Your task to perform on an android device: toggle javascript in the chrome app Image 0: 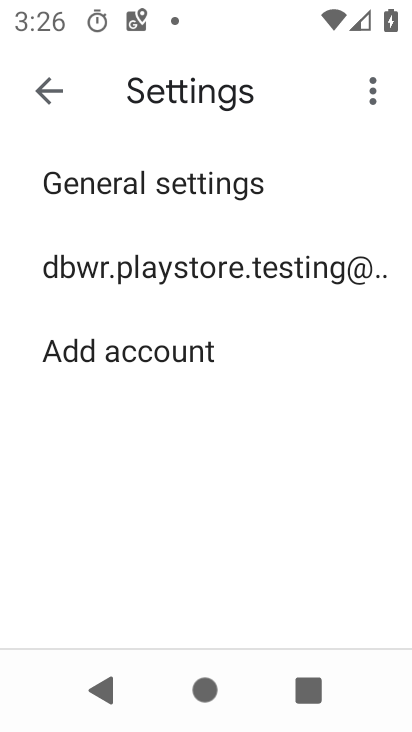
Step 0: press home button
Your task to perform on an android device: toggle javascript in the chrome app Image 1: 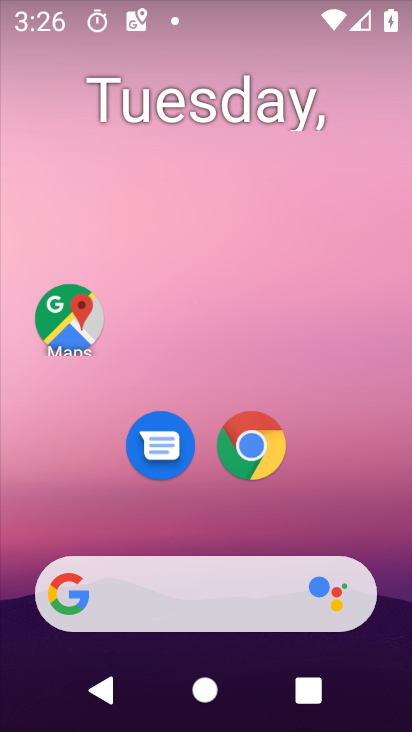
Step 1: click (233, 462)
Your task to perform on an android device: toggle javascript in the chrome app Image 2: 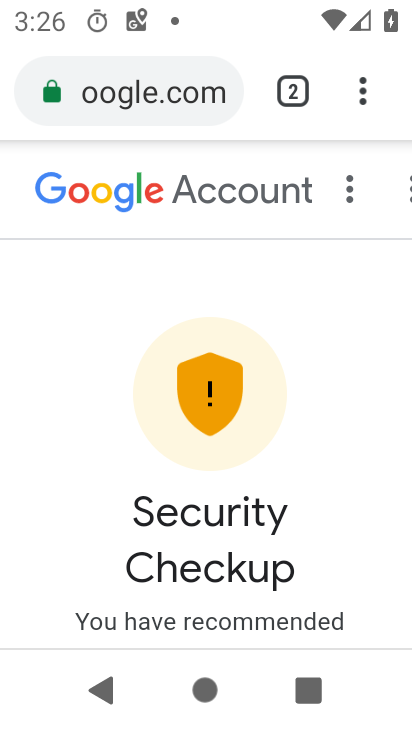
Step 2: click (350, 100)
Your task to perform on an android device: toggle javascript in the chrome app Image 3: 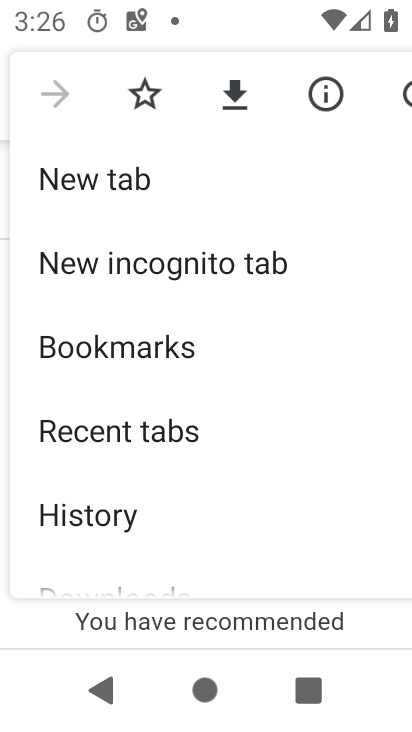
Step 3: drag from (258, 463) to (227, 21)
Your task to perform on an android device: toggle javascript in the chrome app Image 4: 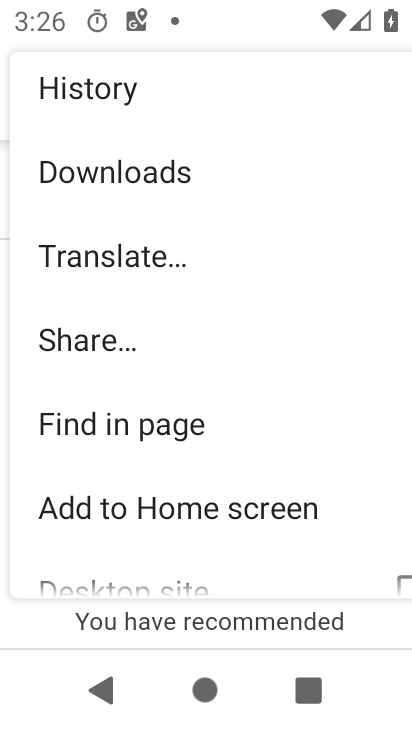
Step 4: drag from (86, 528) to (0, 46)
Your task to perform on an android device: toggle javascript in the chrome app Image 5: 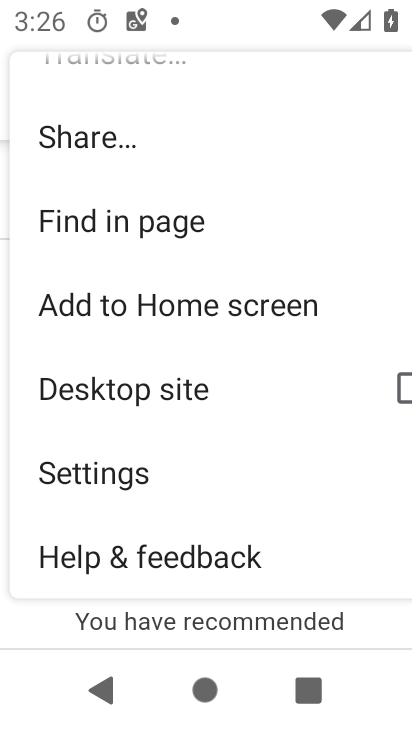
Step 5: click (114, 469)
Your task to perform on an android device: toggle javascript in the chrome app Image 6: 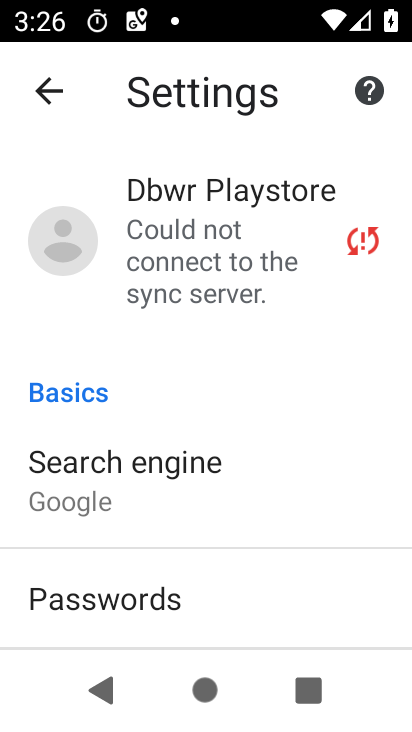
Step 6: drag from (129, 524) to (65, 136)
Your task to perform on an android device: toggle javascript in the chrome app Image 7: 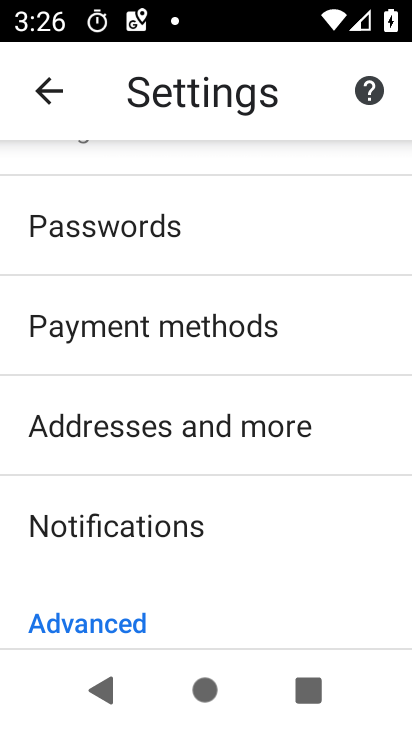
Step 7: drag from (204, 533) to (223, 106)
Your task to perform on an android device: toggle javascript in the chrome app Image 8: 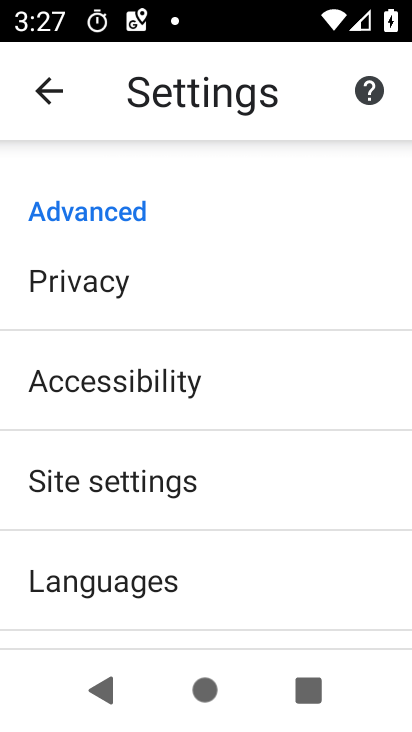
Step 8: click (130, 493)
Your task to perform on an android device: toggle javascript in the chrome app Image 9: 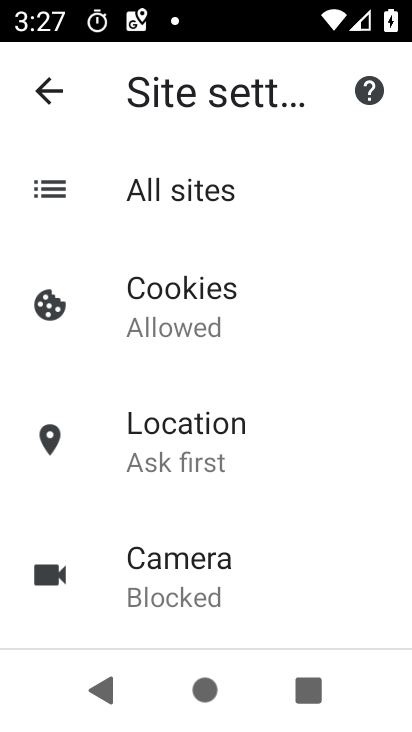
Step 9: drag from (230, 544) to (169, 134)
Your task to perform on an android device: toggle javascript in the chrome app Image 10: 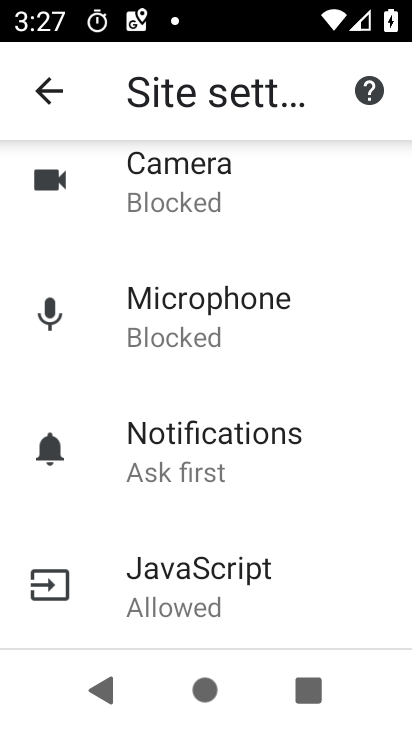
Step 10: click (187, 566)
Your task to perform on an android device: toggle javascript in the chrome app Image 11: 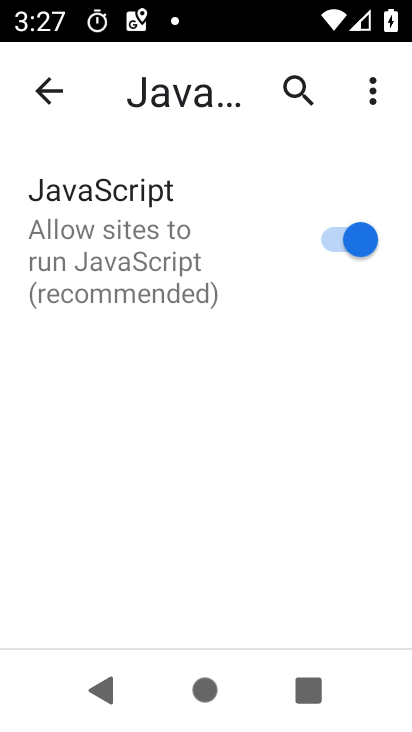
Step 11: click (350, 234)
Your task to perform on an android device: toggle javascript in the chrome app Image 12: 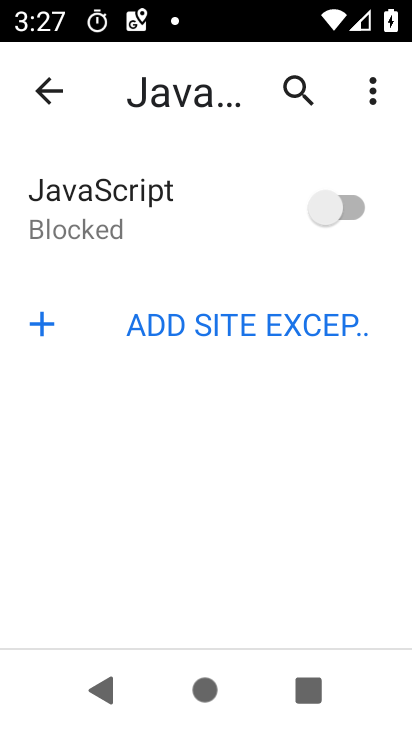
Step 12: task complete